Your task to perform on an android device: uninstall "LiveIn - Share Your Moment" Image 0: 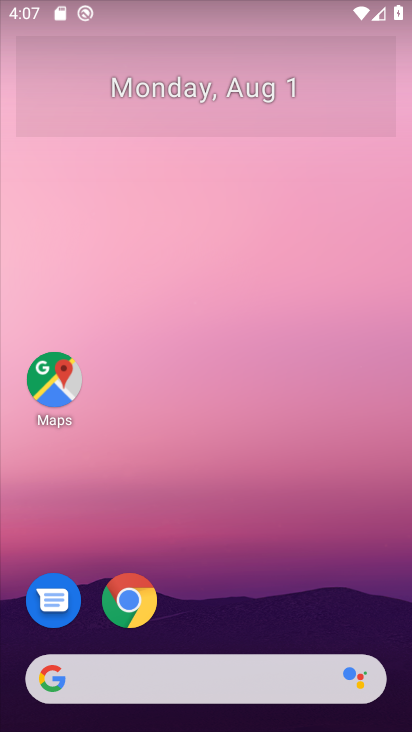
Step 0: drag from (314, 535) to (325, 66)
Your task to perform on an android device: uninstall "LiveIn - Share Your Moment" Image 1: 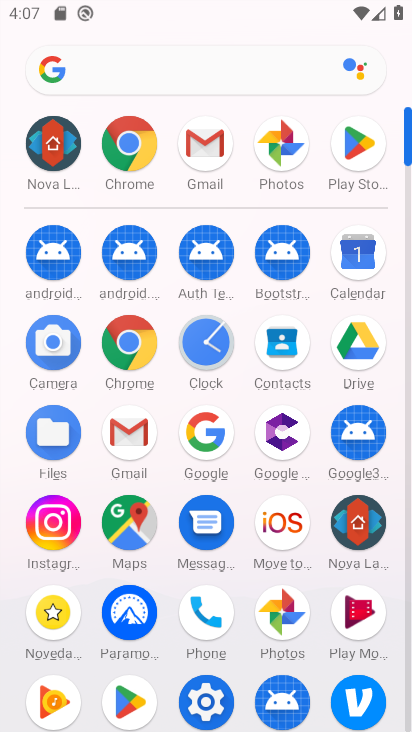
Step 1: click (365, 148)
Your task to perform on an android device: uninstall "LiveIn - Share Your Moment" Image 2: 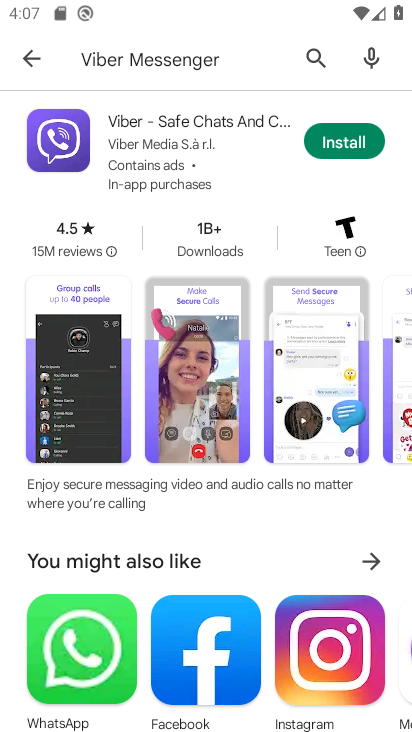
Step 2: click (249, 63)
Your task to perform on an android device: uninstall "LiveIn - Share Your Moment" Image 3: 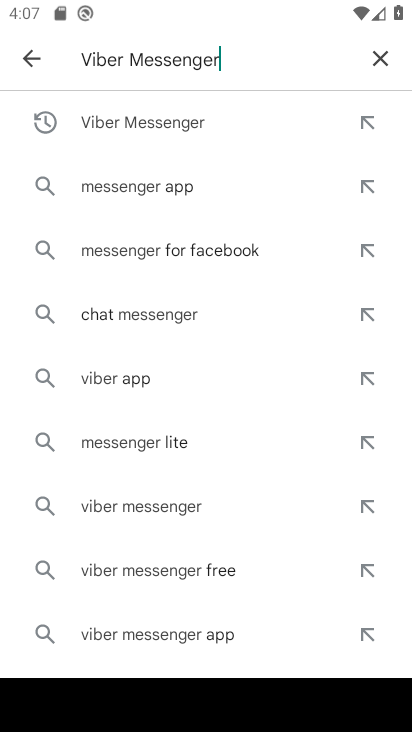
Step 3: click (393, 62)
Your task to perform on an android device: uninstall "LiveIn - Share Your Moment" Image 4: 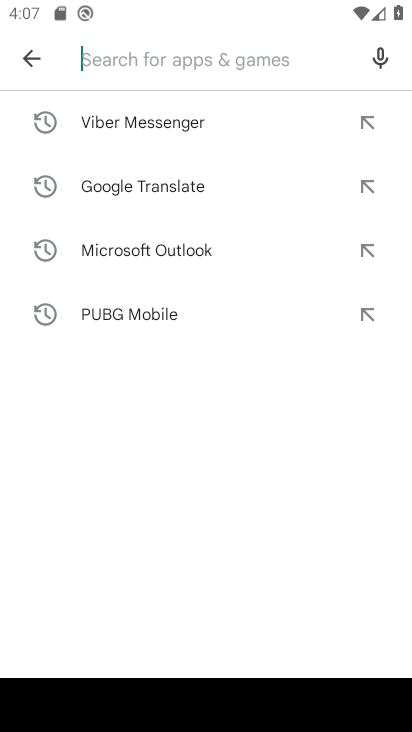
Step 4: type "Liveln"
Your task to perform on an android device: uninstall "LiveIn - Share Your Moment" Image 5: 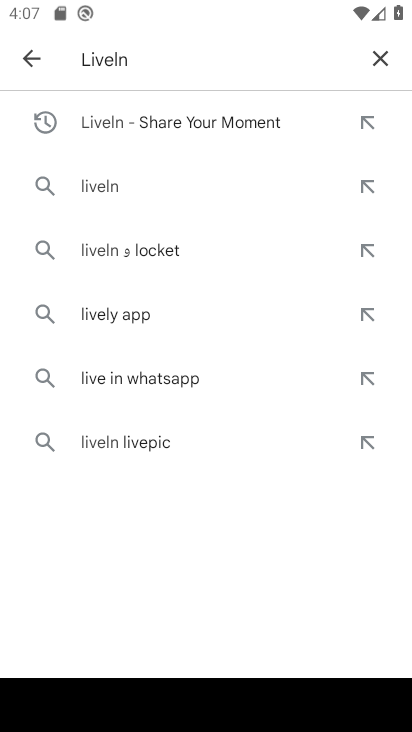
Step 5: click (180, 115)
Your task to perform on an android device: uninstall "LiveIn - Share Your Moment" Image 6: 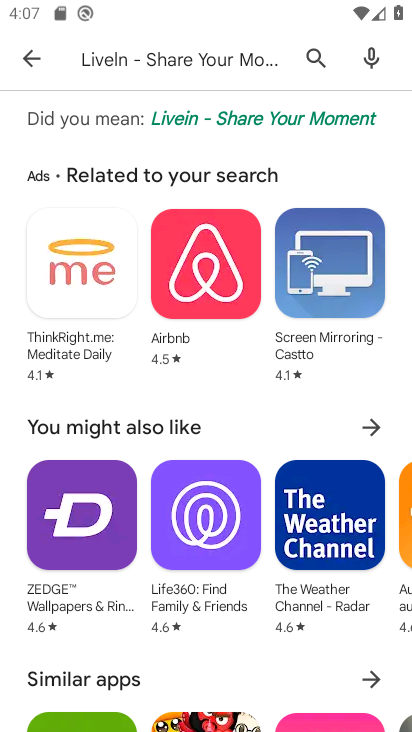
Step 6: click (335, 120)
Your task to perform on an android device: uninstall "LiveIn - Share Your Moment" Image 7: 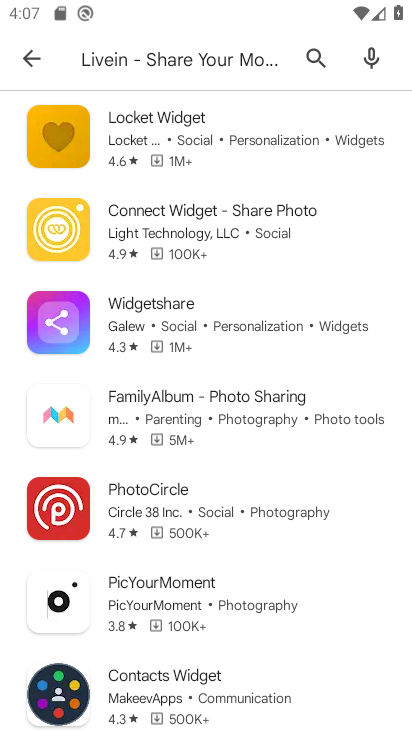
Step 7: task complete